Your task to perform on an android device: open app "Upside-Cash back on gas & food" (install if not already installed) Image 0: 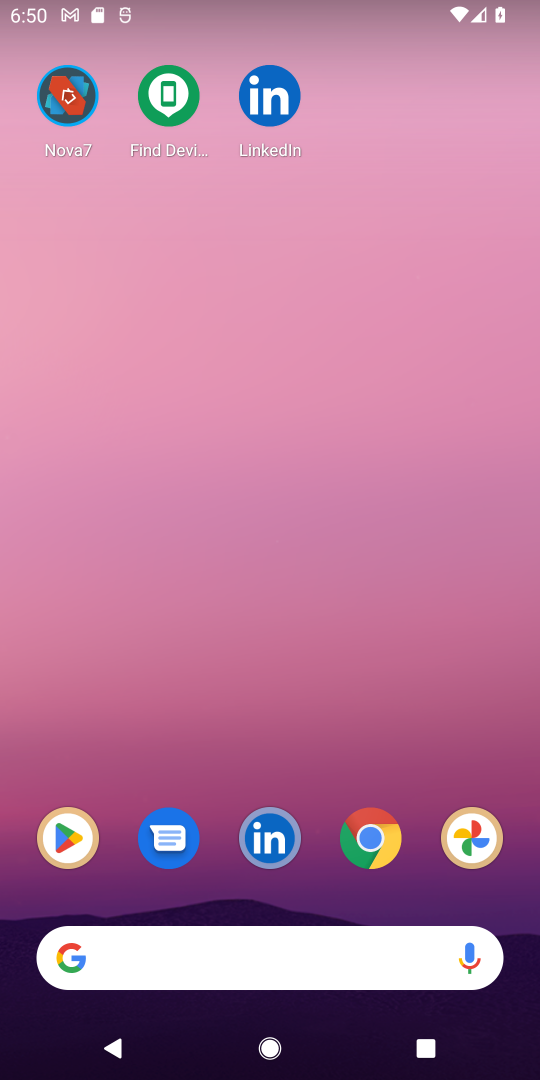
Step 0: click (59, 831)
Your task to perform on an android device: open app "Upside-Cash back on gas & food" (install if not already installed) Image 1: 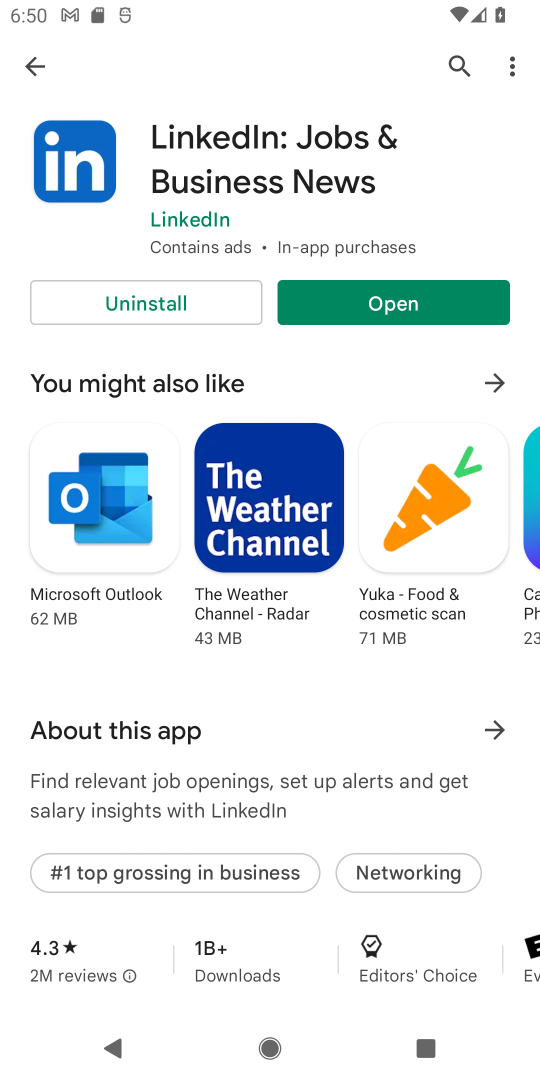
Step 1: click (456, 63)
Your task to perform on an android device: open app "Upside-Cash back on gas & food" (install if not already installed) Image 2: 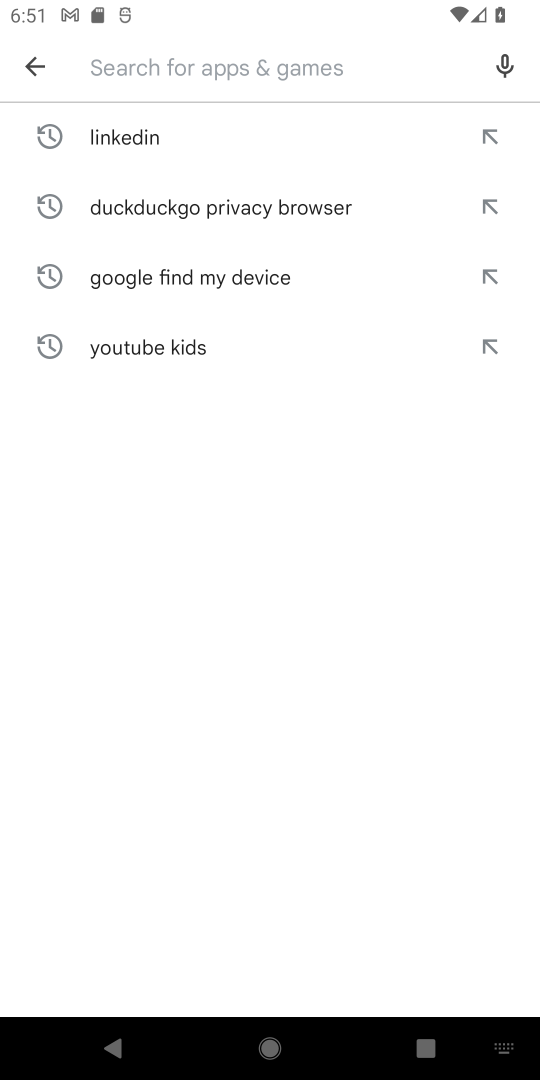
Step 2: type "upside-cash back on gas & food"
Your task to perform on an android device: open app "Upside-Cash back on gas & food" (install if not already installed) Image 3: 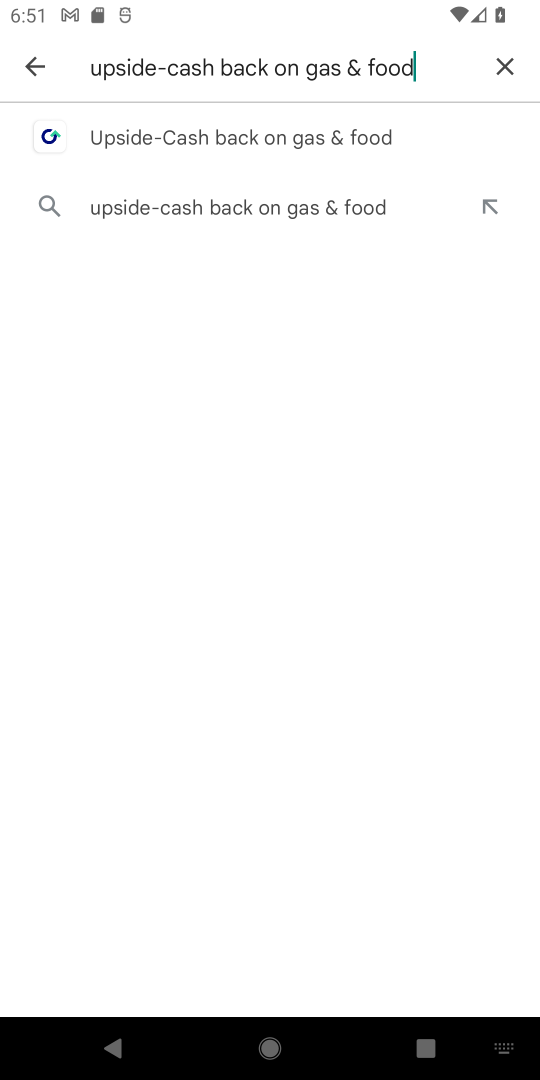
Step 3: click (249, 141)
Your task to perform on an android device: open app "Upside-Cash back on gas & food" (install if not already installed) Image 4: 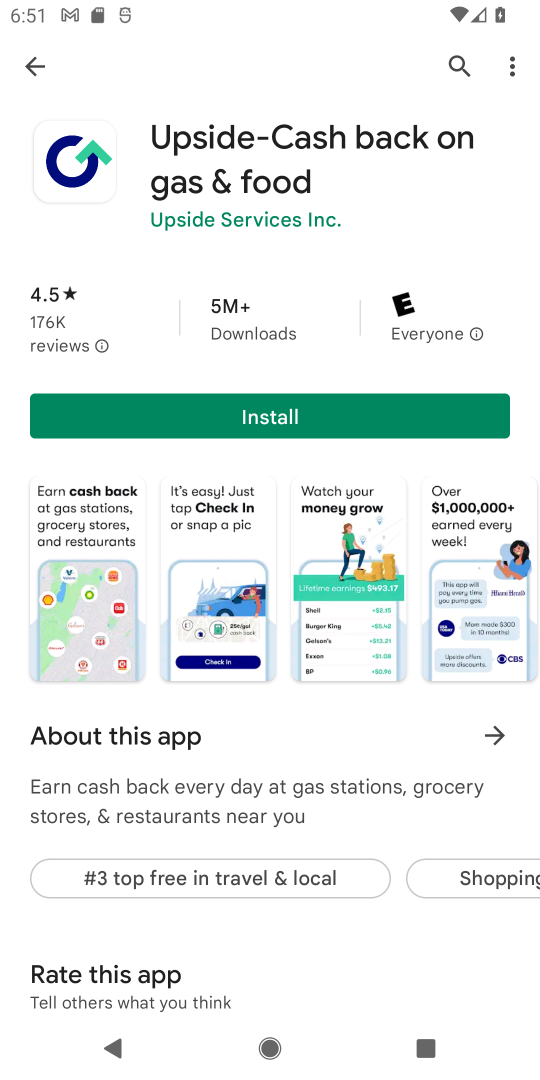
Step 4: click (265, 414)
Your task to perform on an android device: open app "Upside-Cash back on gas & food" (install if not already installed) Image 5: 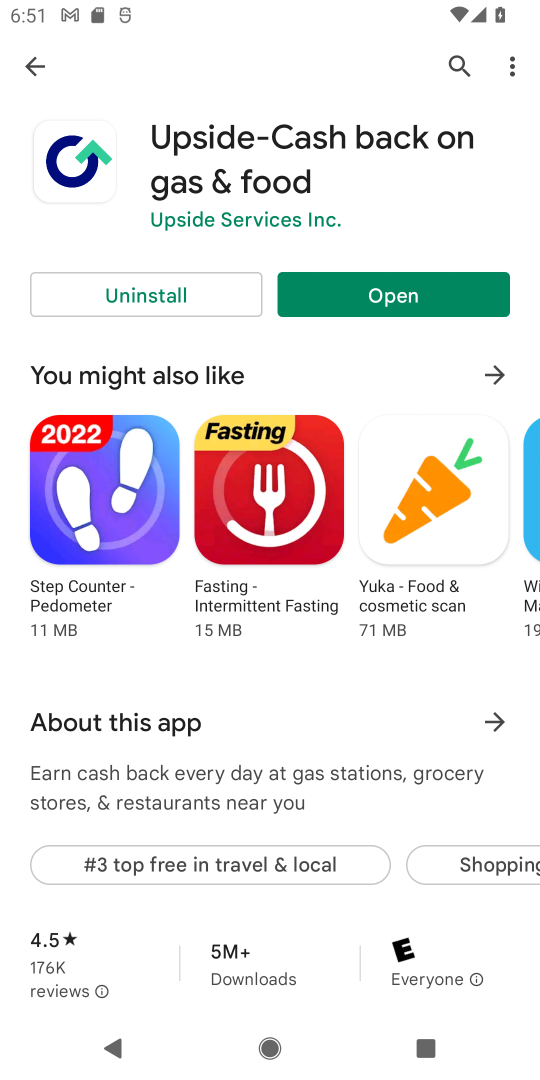
Step 5: click (442, 307)
Your task to perform on an android device: open app "Upside-Cash back on gas & food" (install if not already installed) Image 6: 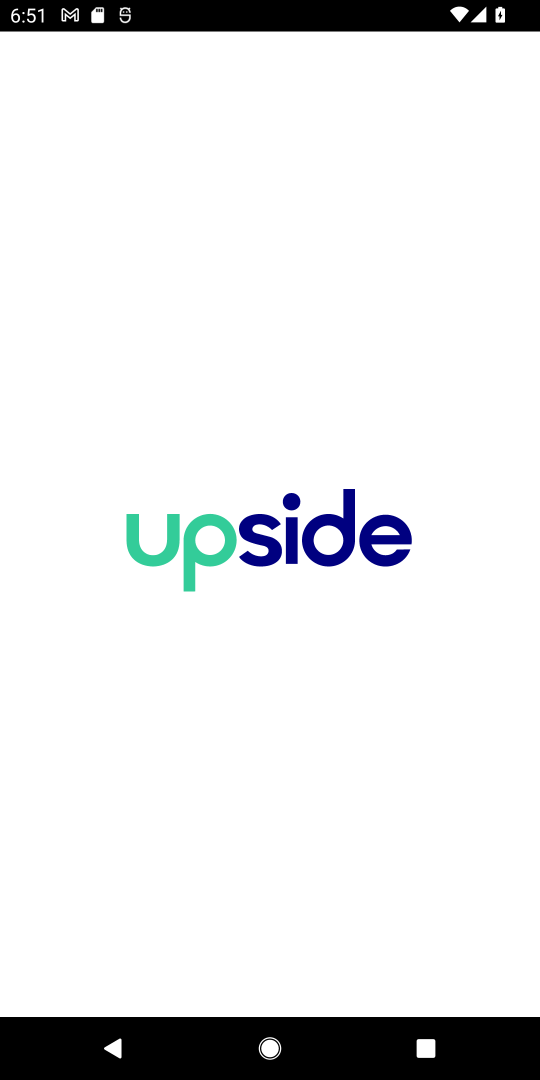
Step 6: task complete